Your task to perform on an android device: find snoozed emails in the gmail app Image 0: 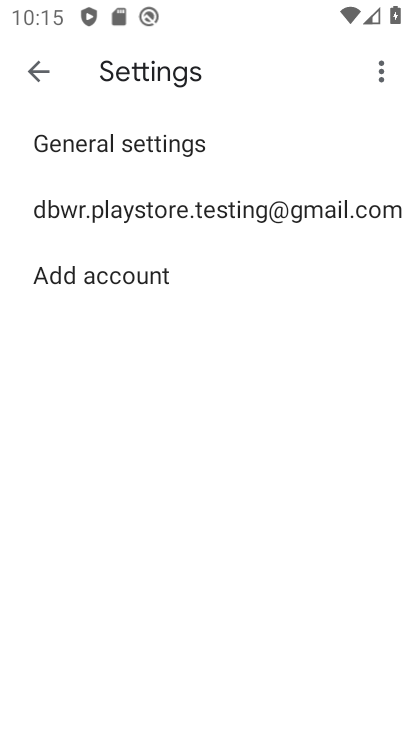
Step 0: task complete